Your task to perform on an android device: toggle notification dots Image 0: 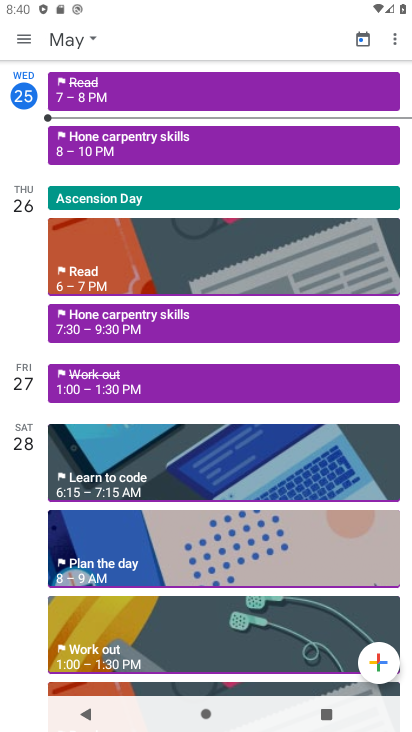
Step 0: press home button
Your task to perform on an android device: toggle notification dots Image 1: 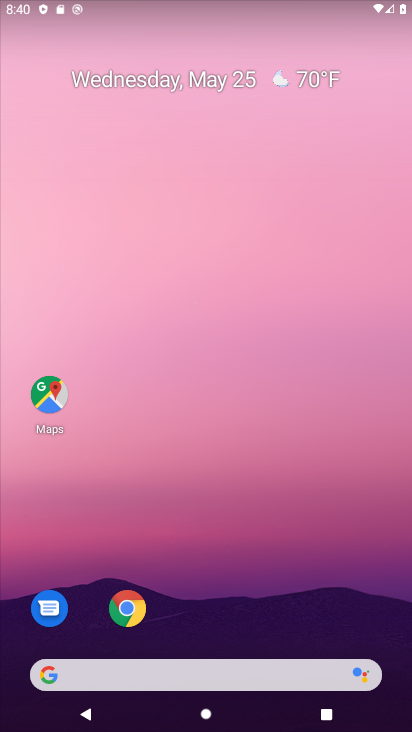
Step 1: drag from (297, 478) to (259, 78)
Your task to perform on an android device: toggle notification dots Image 2: 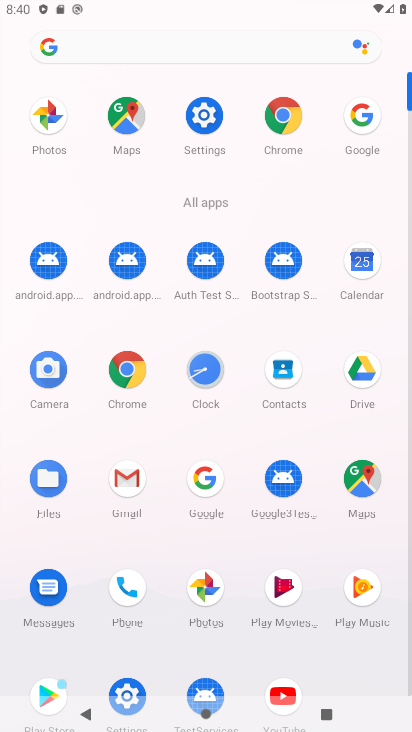
Step 2: click (206, 120)
Your task to perform on an android device: toggle notification dots Image 3: 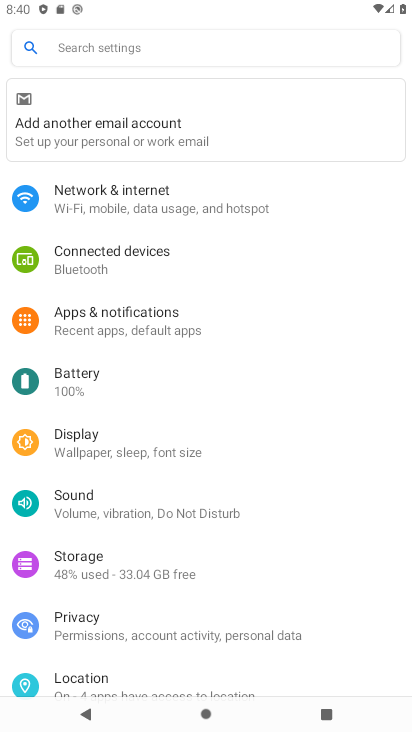
Step 3: click (154, 315)
Your task to perform on an android device: toggle notification dots Image 4: 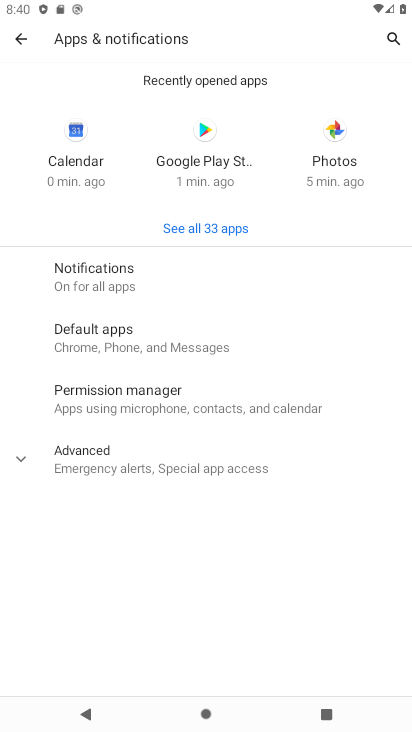
Step 4: click (174, 283)
Your task to perform on an android device: toggle notification dots Image 5: 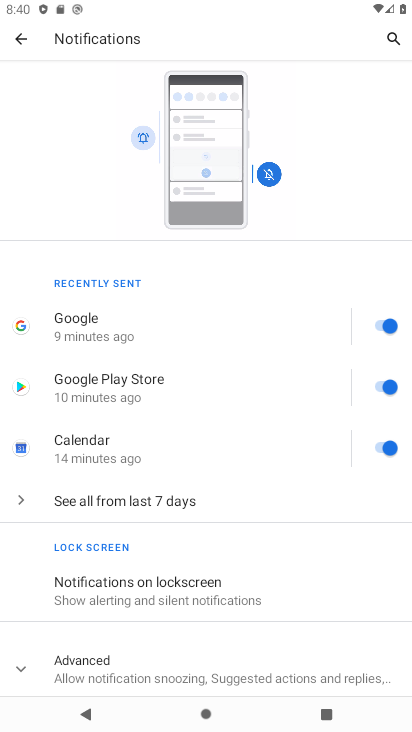
Step 5: click (209, 662)
Your task to perform on an android device: toggle notification dots Image 6: 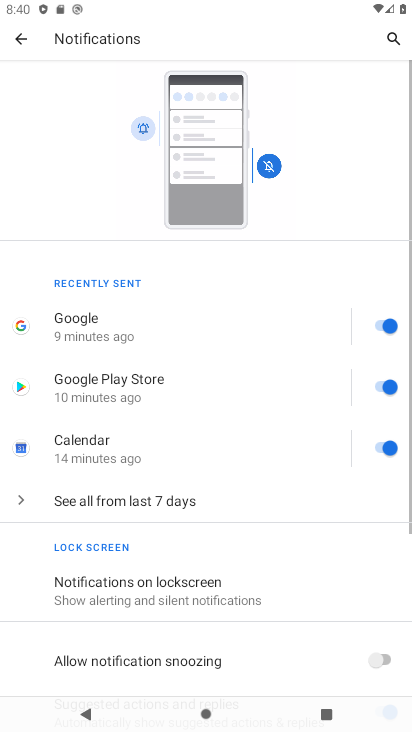
Step 6: drag from (251, 625) to (279, 159)
Your task to perform on an android device: toggle notification dots Image 7: 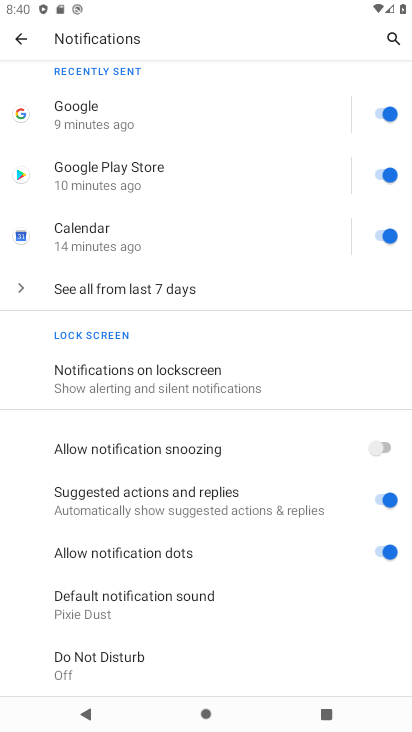
Step 7: click (379, 550)
Your task to perform on an android device: toggle notification dots Image 8: 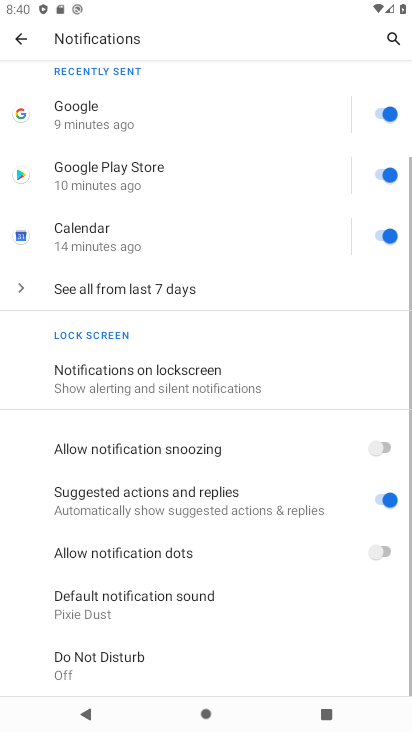
Step 8: task complete